Your task to perform on an android device: change the clock display to analog Image 0: 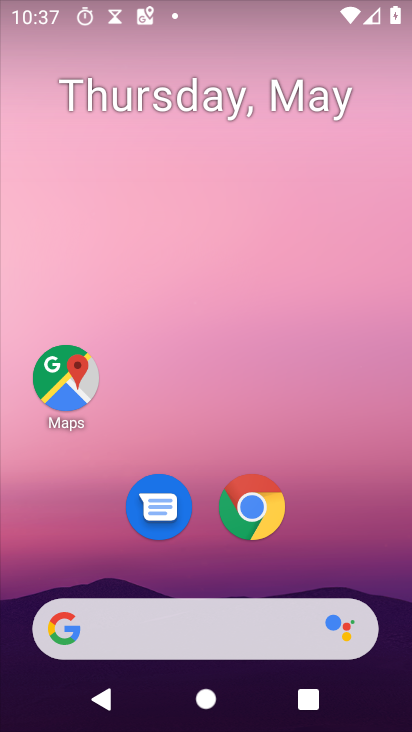
Step 0: drag from (145, 726) to (189, 75)
Your task to perform on an android device: change the clock display to analog Image 1: 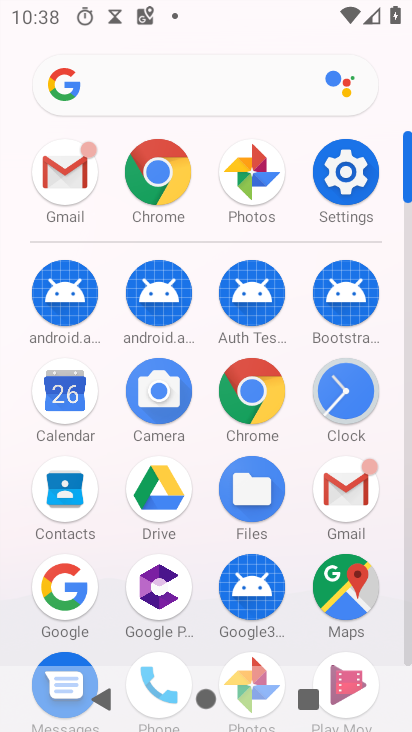
Step 1: click (346, 400)
Your task to perform on an android device: change the clock display to analog Image 2: 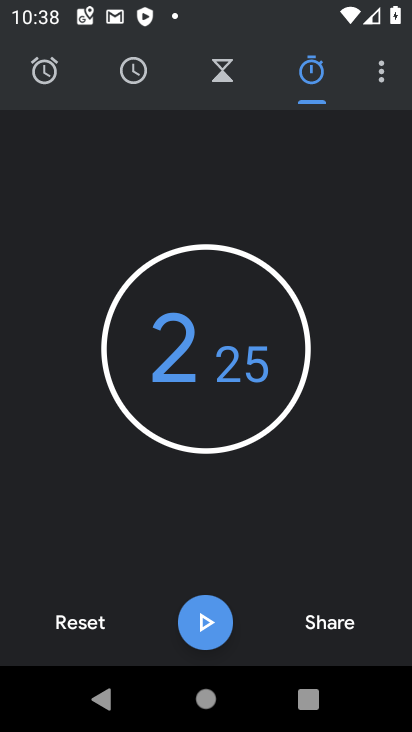
Step 2: click (383, 68)
Your task to perform on an android device: change the clock display to analog Image 3: 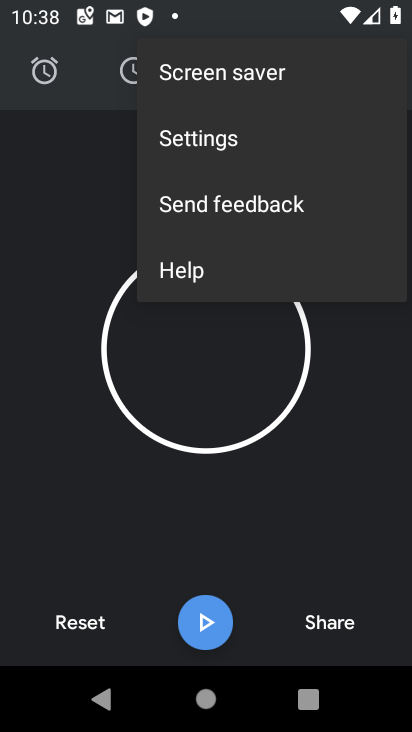
Step 3: click (189, 146)
Your task to perform on an android device: change the clock display to analog Image 4: 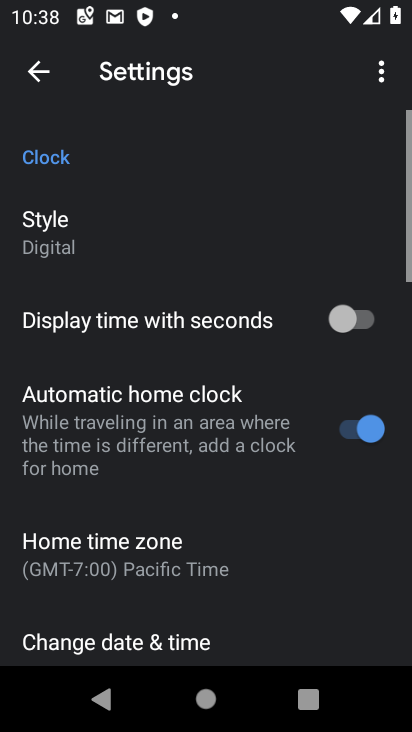
Step 4: click (66, 249)
Your task to perform on an android device: change the clock display to analog Image 5: 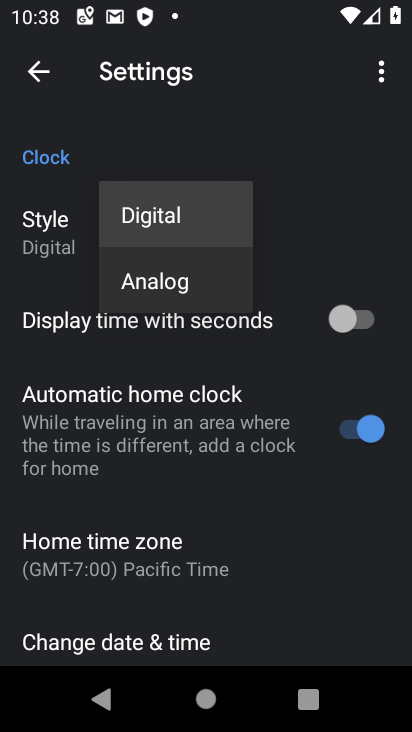
Step 5: click (158, 280)
Your task to perform on an android device: change the clock display to analog Image 6: 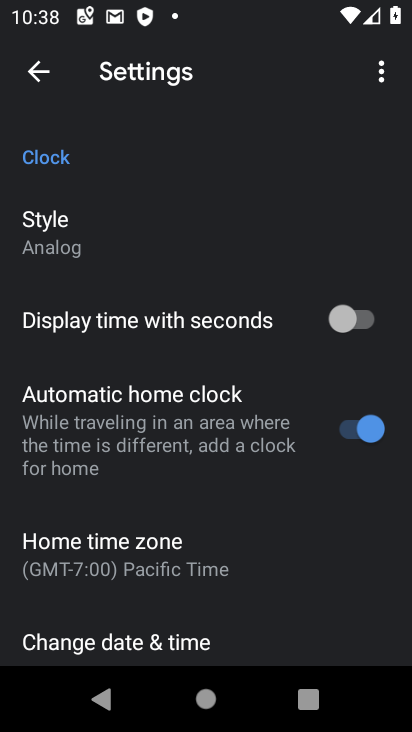
Step 6: task complete